Your task to perform on an android device: set an alarm Image 0: 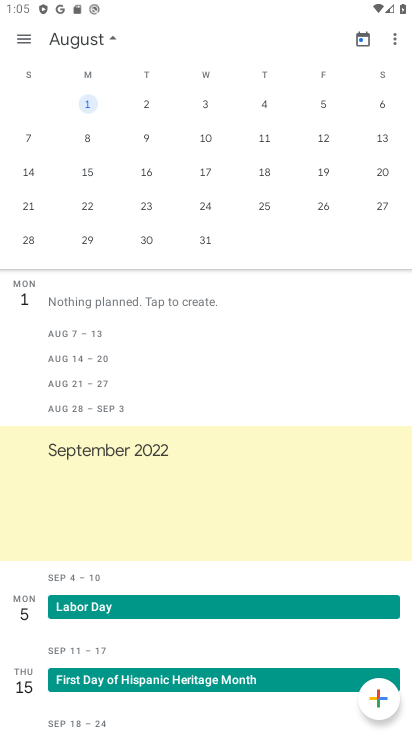
Step 0: press home button
Your task to perform on an android device: set an alarm Image 1: 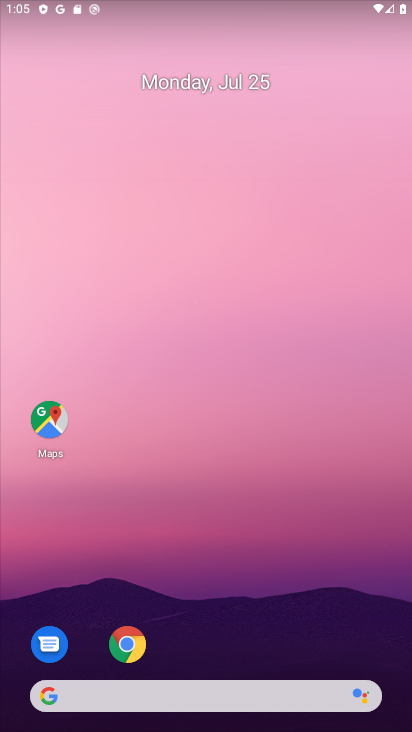
Step 1: drag from (224, 627) to (206, 3)
Your task to perform on an android device: set an alarm Image 2: 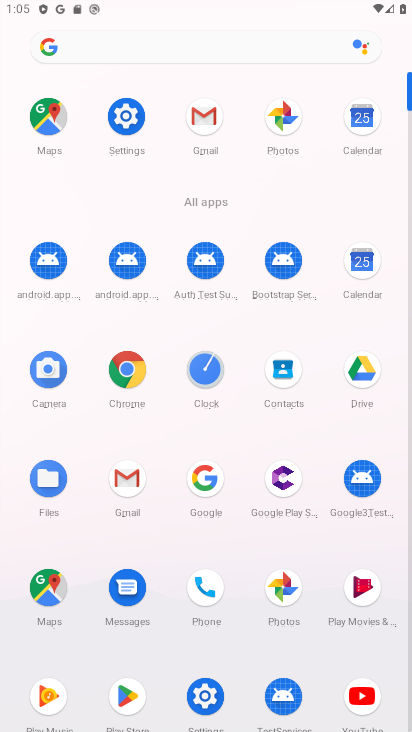
Step 2: click (205, 364)
Your task to perform on an android device: set an alarm Image 3: 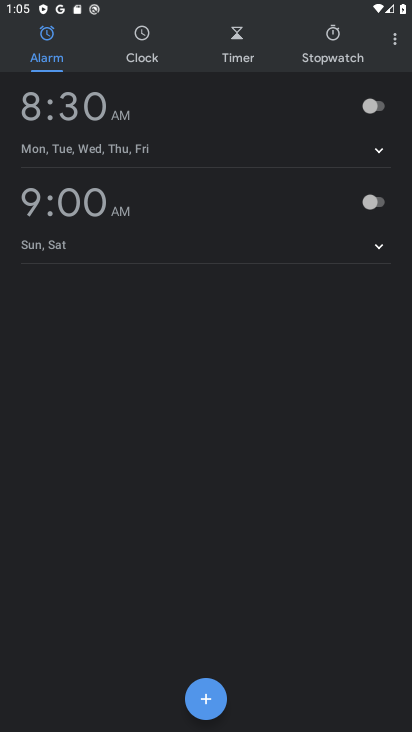
Step 3: click (201, 696)
Your task to perform on an android device: set an alarm Image 4: 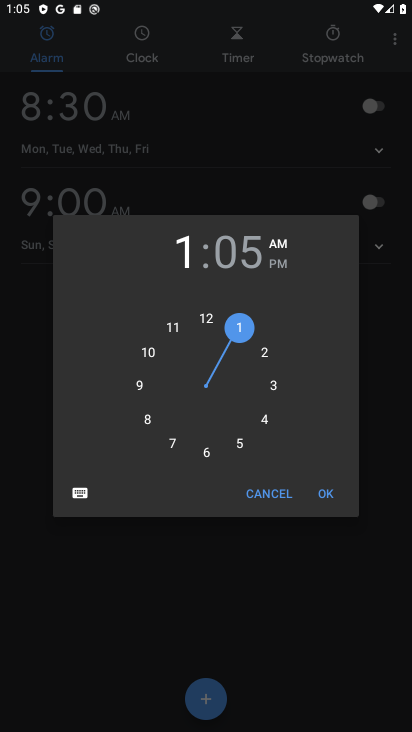
Step 4: click (329, 484)
Your task to perform on an android device: set an alarm Image 5: 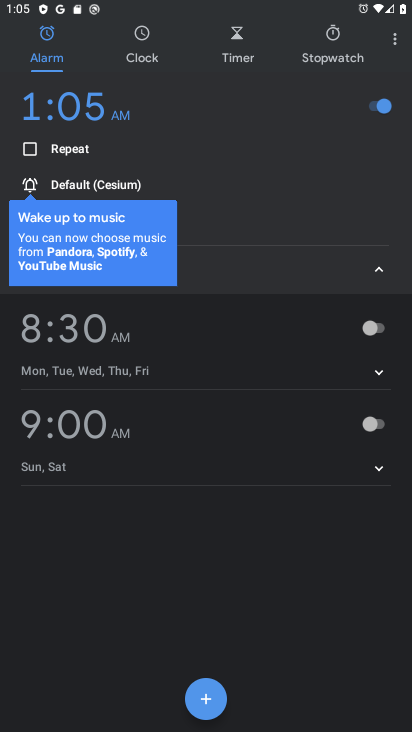
Step 5: click (383, 261)
Your task to perform on an android device: set an alarm Image 6: 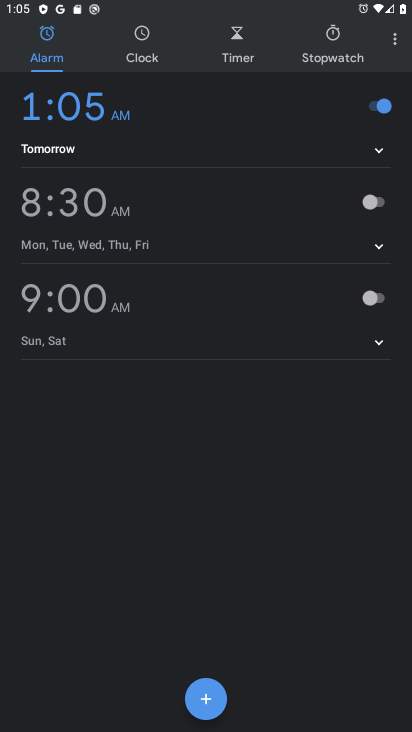
Step 6: task complete